Your task to perform on an android device: toggle pop-ups in chrome Image 0: 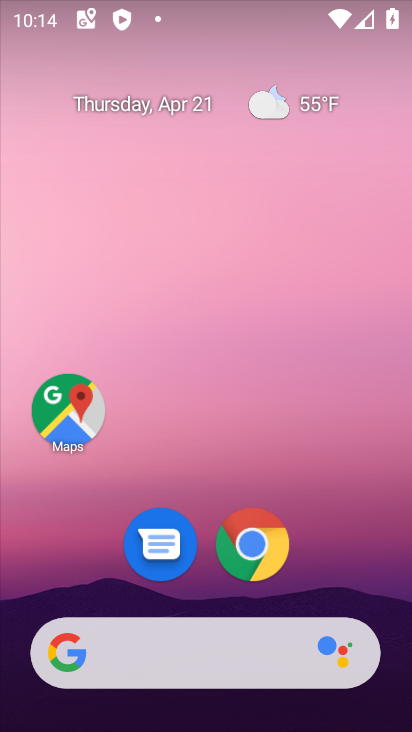
Step 0: drag from (355, 537) to (259, 5)
Your task to perform on an android device: toggle pop-ups in chrome Image 1: 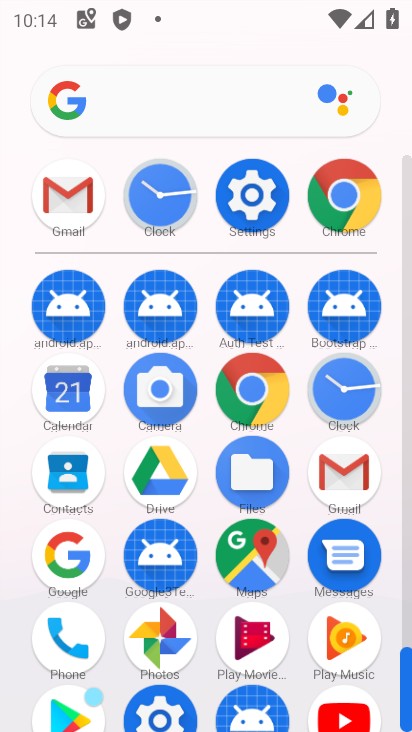
Step 1: click (249, 383)
Your task to perform on an android device: toggle pop-ups in chrome Image 2: 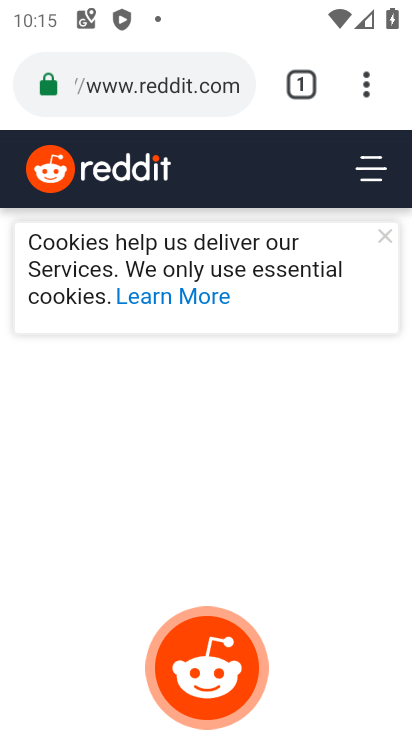
Step 2: drag from (363, 72) to (121, 593)
Your task to perform on an android device: toggle pop-ups in chrome Image 3: 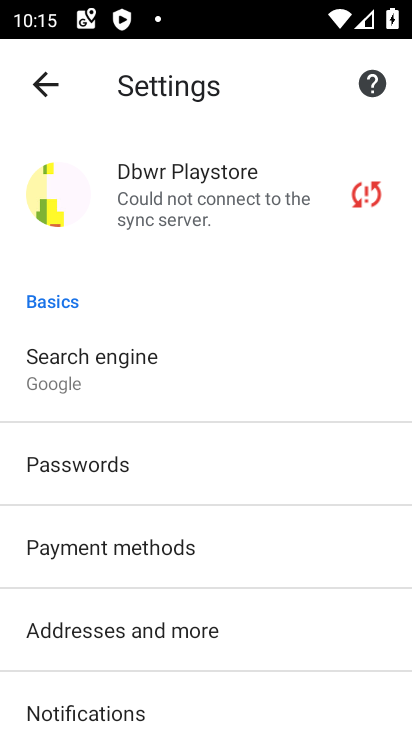
Step 3: drag from (233, 504) to (218, 192)
Your task to perform on an android device: toggle pop-ups in chrome Image 4: 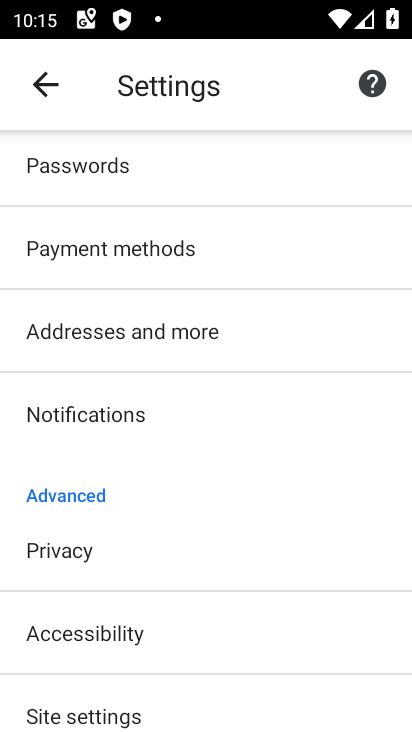
Step 4: drag from (264, 596) to (258, 145)
Your task to perform on an android device: toggle pop-ups in chrome Image 5: 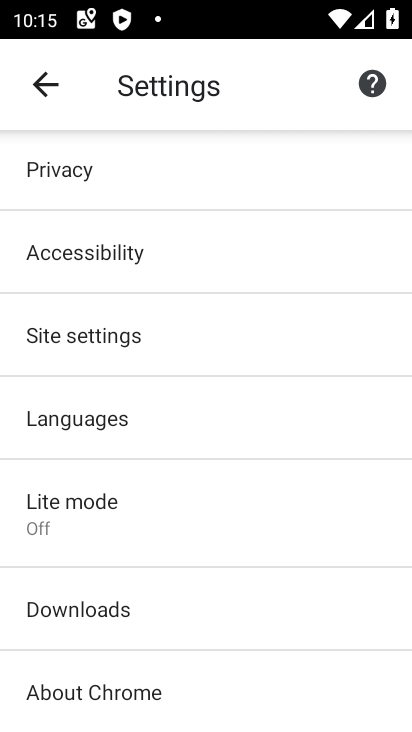
Step 5: click (118, 344)
Your task to perform on an android device: toggle pop-ups in chrome Image 6: 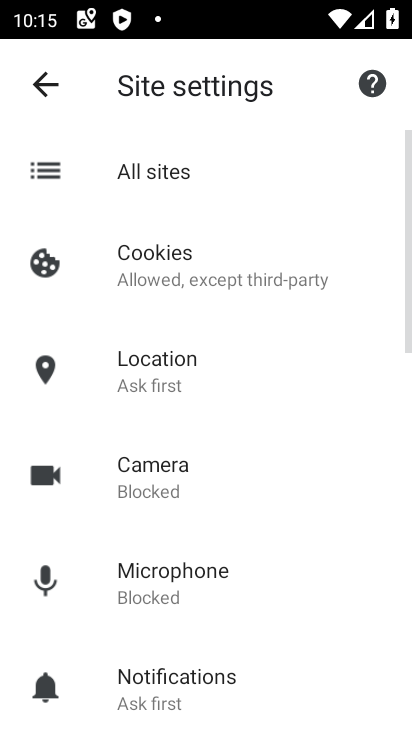
Step 6: drag from (304, 551) to (298, 194)
Your task to perform on an android device: toggle pop-ups in chrome Image 7: 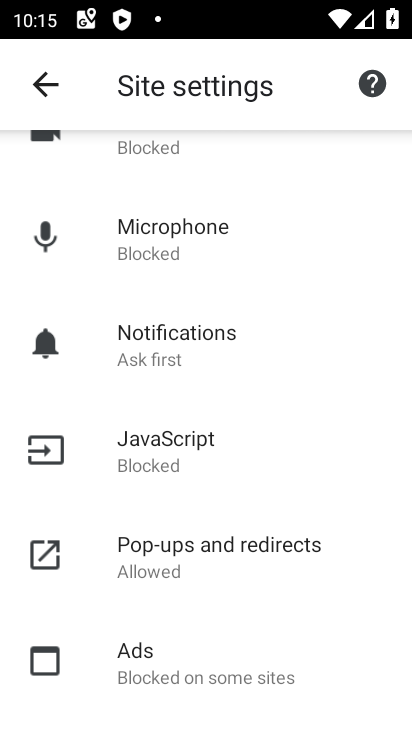
Step 7: click (244, 545)
Your task to perform on an android device: toggle pop-ups in chrome Image 8: 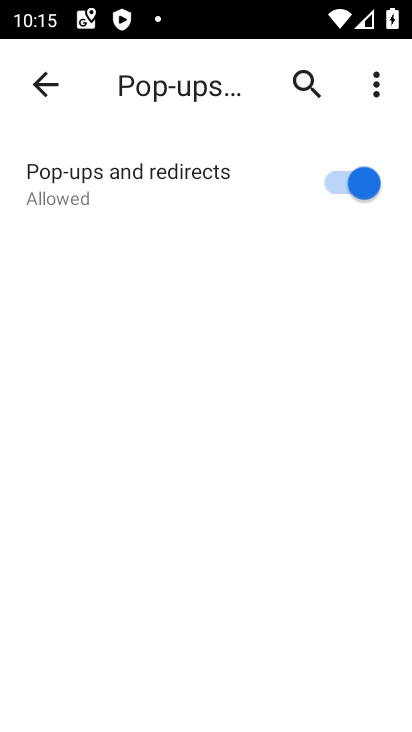
Step 8: click (337, 192)
Your task to perform on an android device: toggle pop-ups in chrome Image 9: 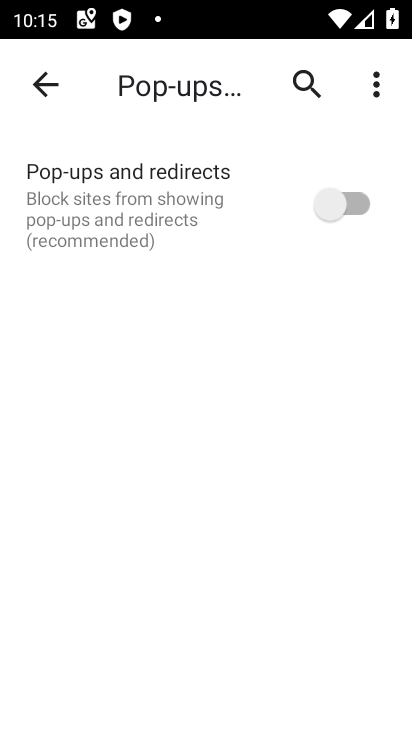
Step 9: task complete